Your task to perform on an android device: toggle notifications settings in the gmail app Image 0: 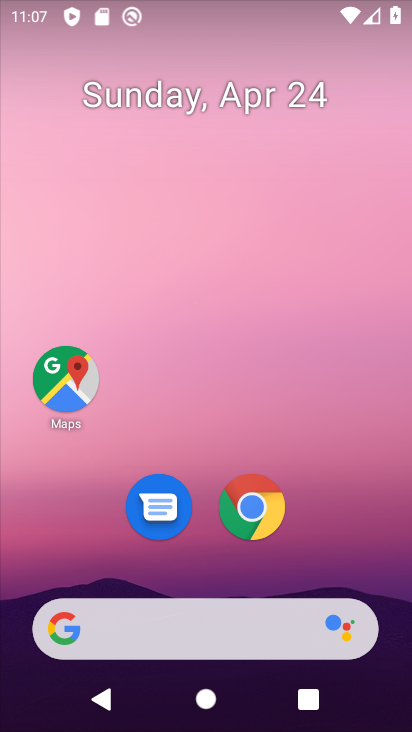
Step 0: drag from (343, 552) to (328, 28)
Your task to perform on an android device: toggle notifications settings in the gmail app Image 1: 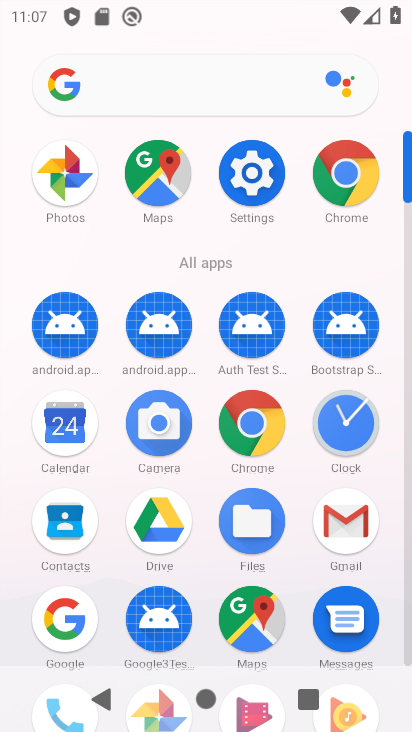
Step 1: drag from (21, 625) to (38, 144)
Your task to perform on an android device: toggle notifications settings in the gmail app Image 2: 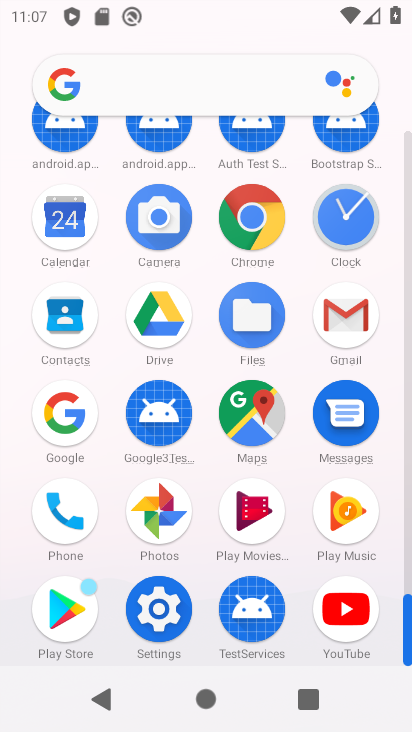
Step 2: click (343, 315)
Your task to perform on an android device: toggle notifications settings in the gmail app Image 3: 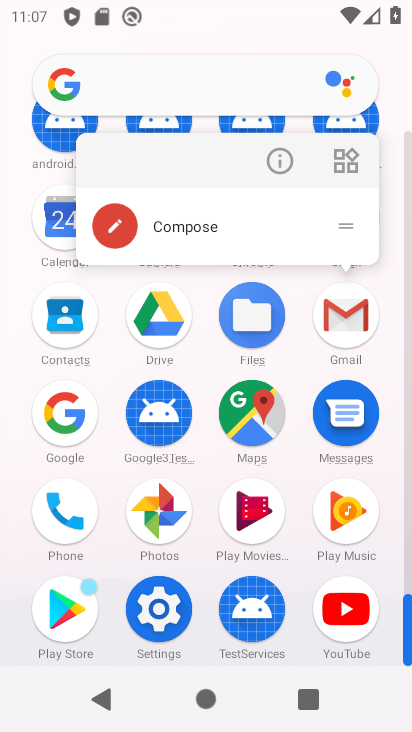
Step 3: click (343, 315)
Your task to perform on an android device: toggle notifications settings in the gmail app Image 4: 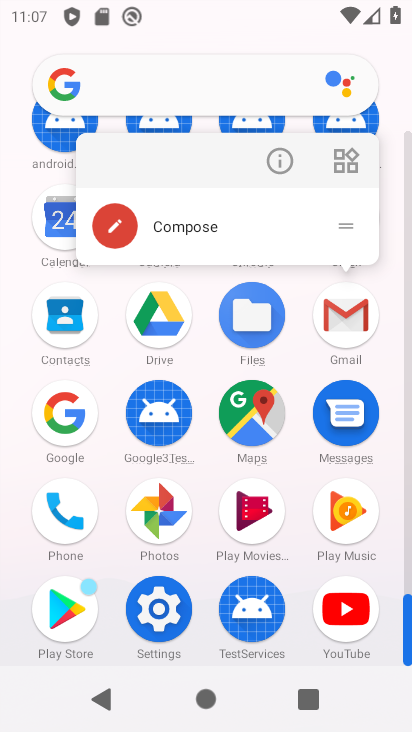
Step 4: click (343, 315)
Your task to perform on an android device: toggle notifications settings in the gmail app Image 5: 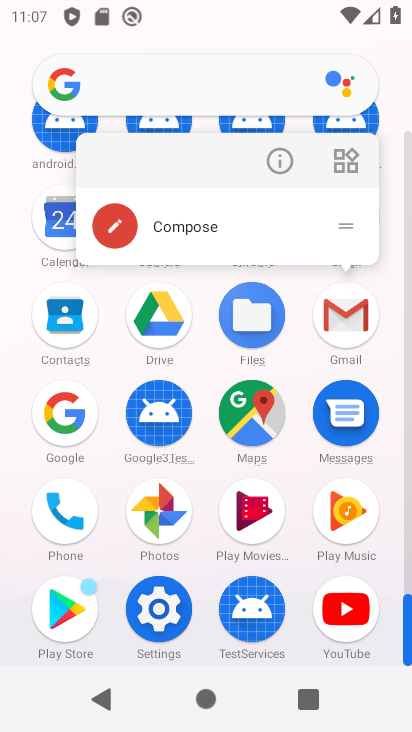
Step 5: click (343, 294)
Your task to perform on an android device: toggle notifications settings in the gmail app Image 6: 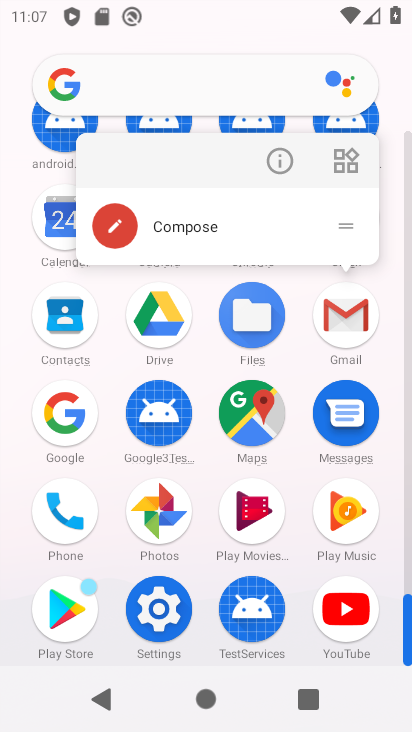
Step 6: click (343, 318)
Your task to perform on an android device: toggle notifications settings in the gmail app Image 7: 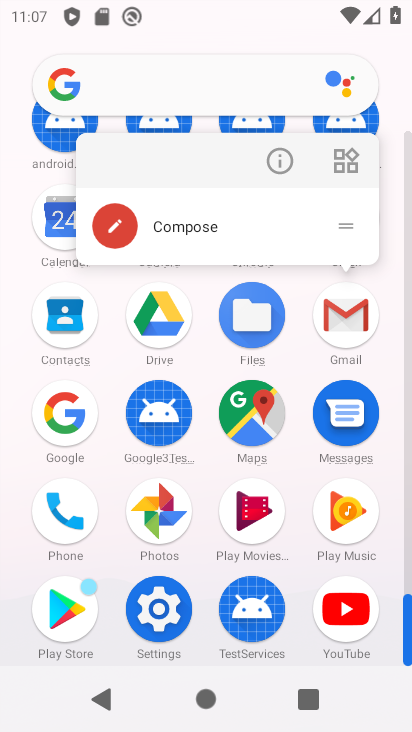
Step 7: click (343, 318)
Your task to perform on an android device: toggle notifications settings in the gmail app Image 8: 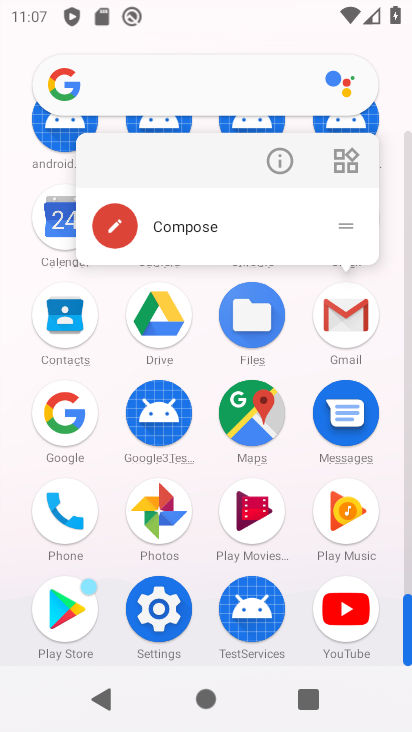
Step 8: click (372, 316)
Your task to perform on an android device: toggle notifications settings in the gmail app Image 9: 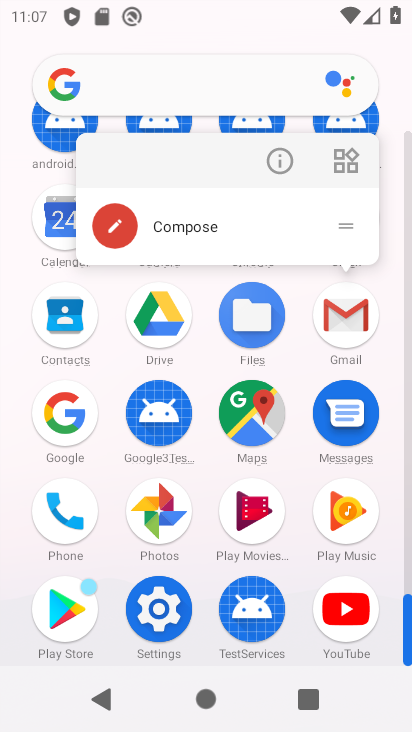
Step 9: click (334, 309)
Your task to perform on an android device: toggle notifications settings in the gmail app Image 10: 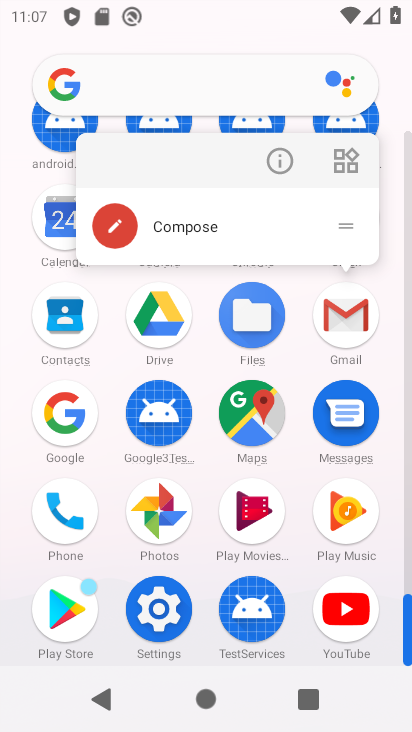
Step 10: click (334, 309)
Your task to perform on an android device: toggle notifications settings in the gmail app Image 11: 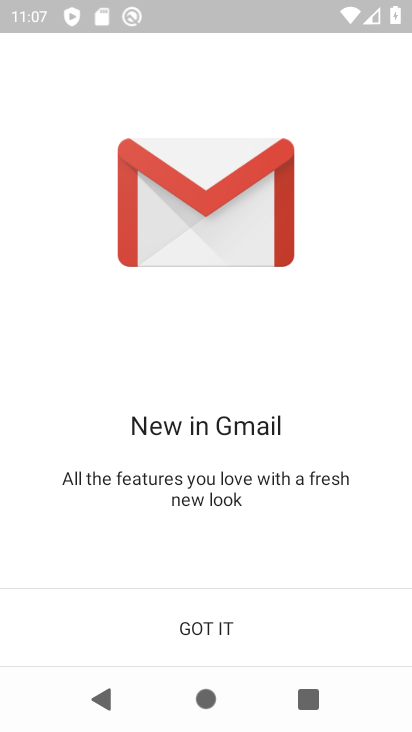
Step 11: click (213, 613)
Your task to perform on an android device: toggle notifications settings in the gmail app Image 12: 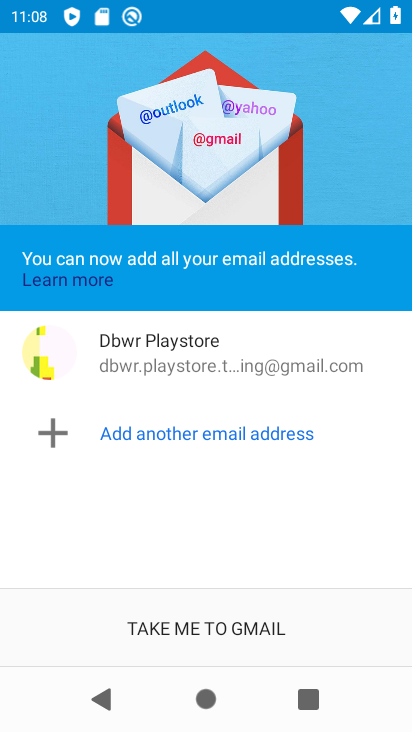
Step 12: drag from (283, 505) to (307, 150)
Your task to perform on an android device: toggle notifications settings in the gmail app Image 13: 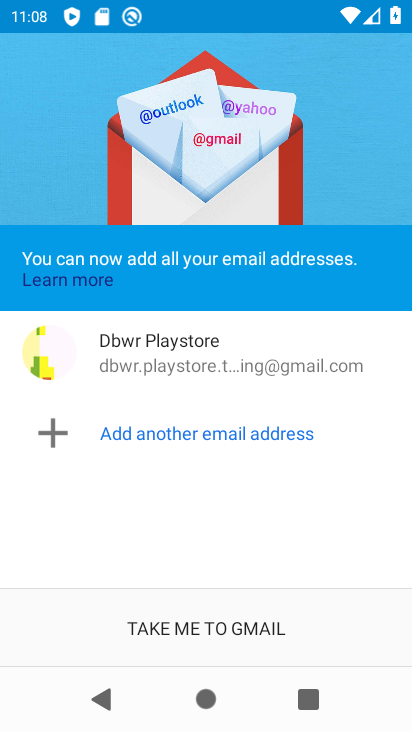
Step 13: drag from (279, 558) to (319, 154)
Your task to perform on an android device: toggle notifications settings in the gmail app Image 14: 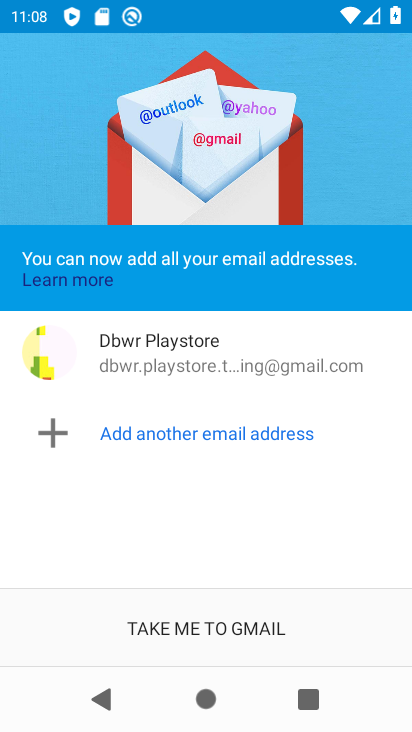
Step 14: click (188, 630)
Your task to perform on an android device: toggle notifications settings in the gmail app Image 15: 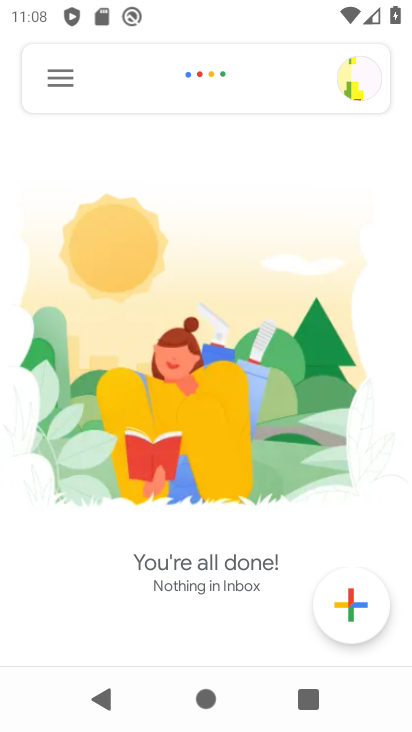
Step 15: click (54, 100)
Your task to perform on an android device: toggle notifications settings in the gmail app Image 16: 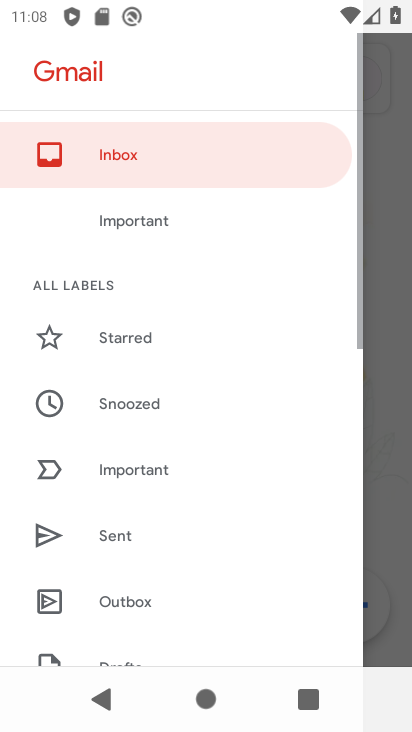
Step 16: drag from (124, 541) to (149, 115)
Your task to perform on an android device: toggle notifications settings in the gmail app Image 17: 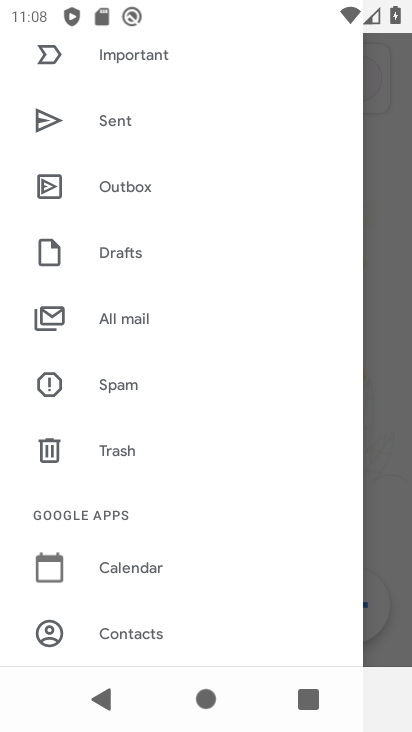
Step 17: drag from (153, 517) to (197, 146)
Your task to perform on an android device: toggle notifications settings in the gmail app Image 18: 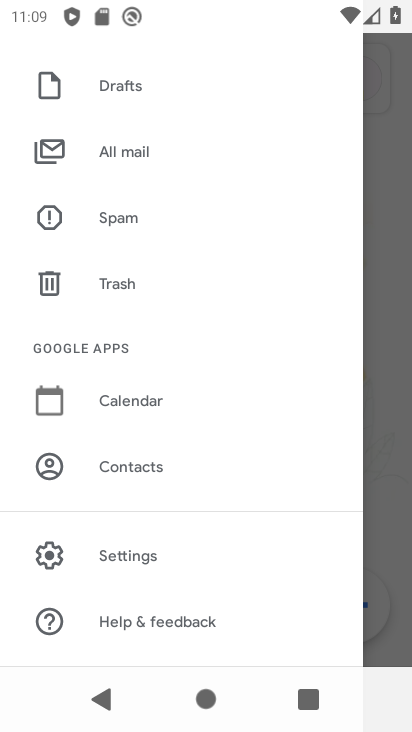
Step 18: click (158, 544)
Your task to perform on an android device: toggle notifications settings in the gmail app Image 19: 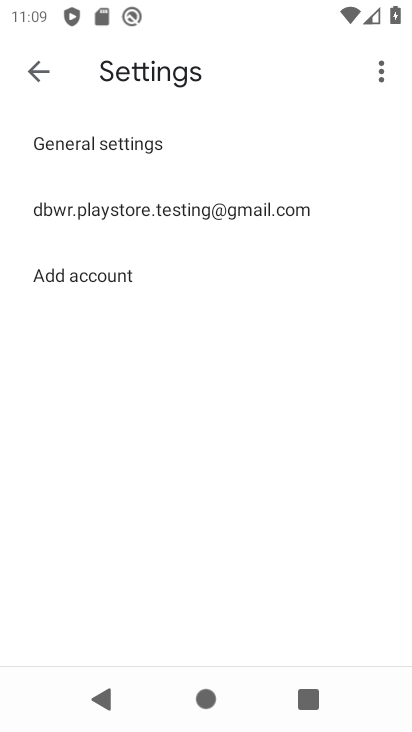
Step 19: click (98, 193)
Your task to perform on an android device: toggle notifications settings in the gmail app Image 20: 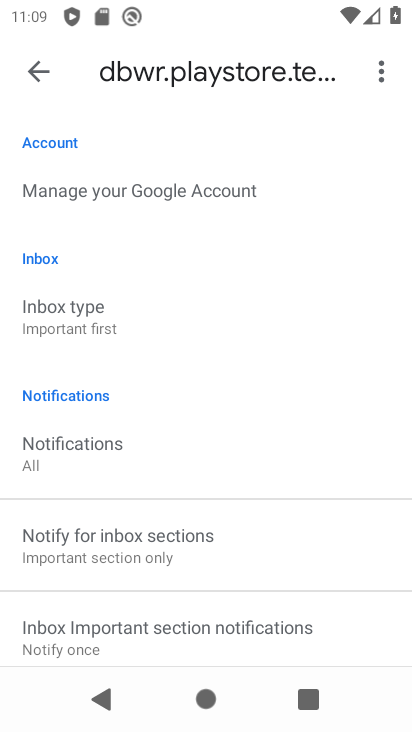
Step 20: drag from (256, 506) to (224, 136)
Your task to perform on an android device: toggle notifications settings in the gmail app Image 21: 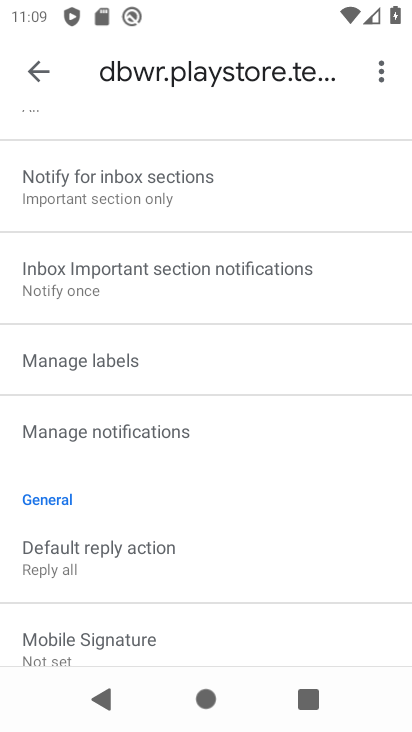
Step 21: click (164, 426)
Your task to perform on an android device: toggle notifications settings in the gmail app Image 22: 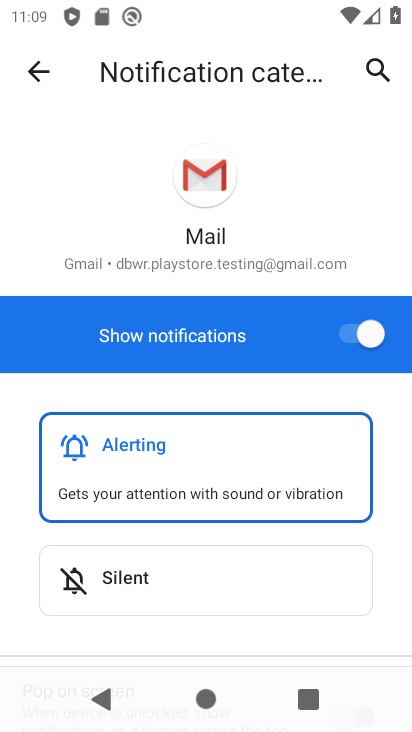
Step 22: click (346, 330)
Your task to perform on an android device: toggle notifications settings in the gmail app Image 23: 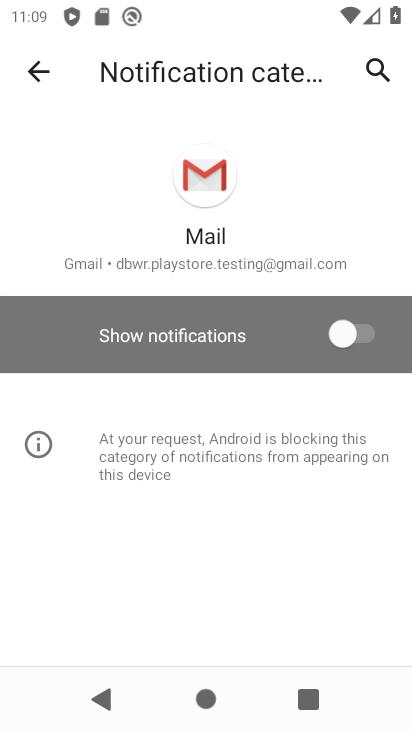
Step 23: task complete